Your task to perform on an android device: turn off airplane mode Image 0: 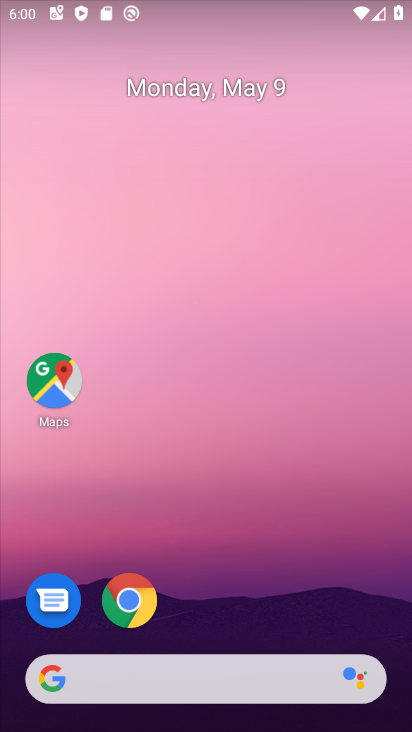
Step 0: drag from (223, 646) to (232, 239)
Your task to perform on an android device: turn off airplane mode Image 1: 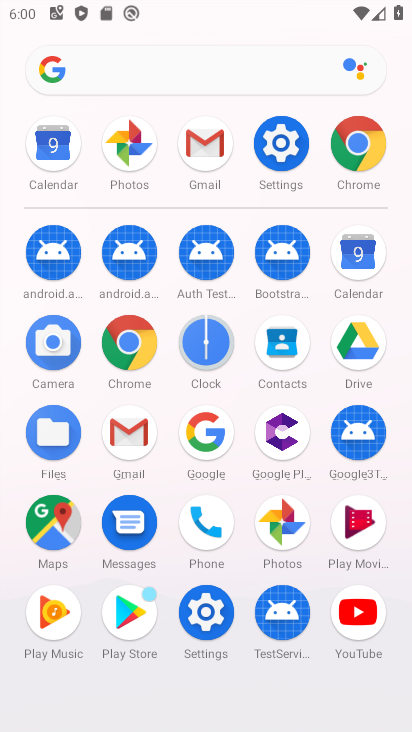
Step 1: click (276, 148)
Your task to perform on an android device: turn off airplane mode Image 2: 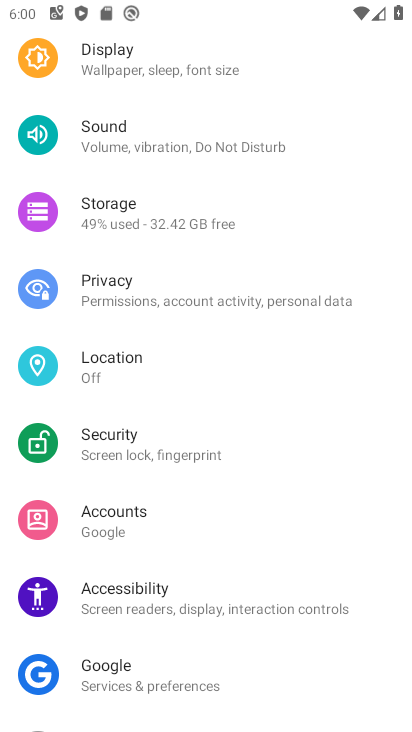
Step 2: drag from (163, 155) to (200, 596)
Your task to perform on an android device: turn off airplane mode Image 3: 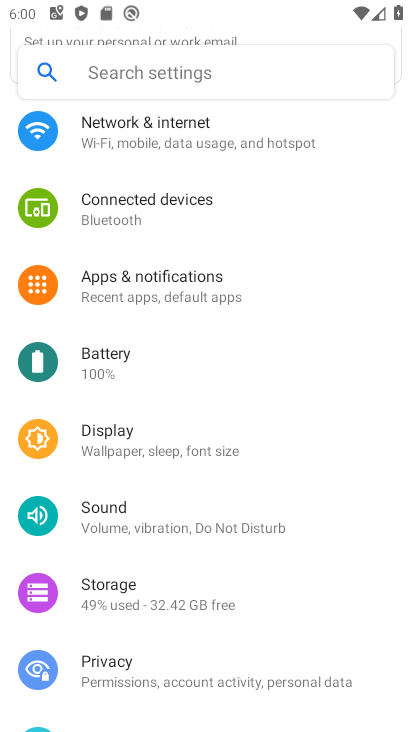
Step 3: drag from (200, 192) to (193, 479)
Your task to perform on an android device: turn off airplane mode Image 4: 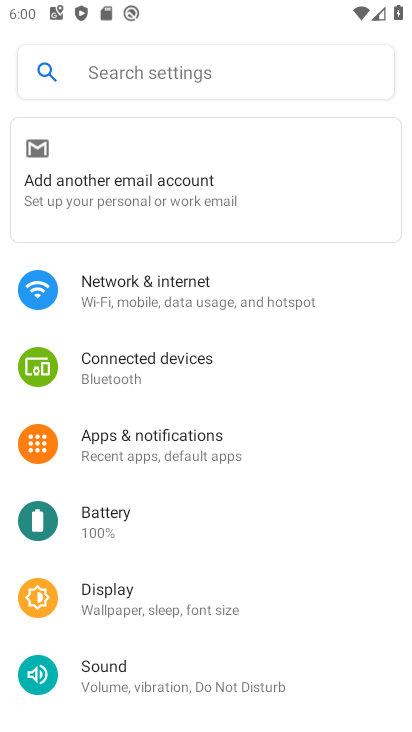
Step 4: click (165, 302)
Your task to perform on an android device: turn off airplane mode Image 5: 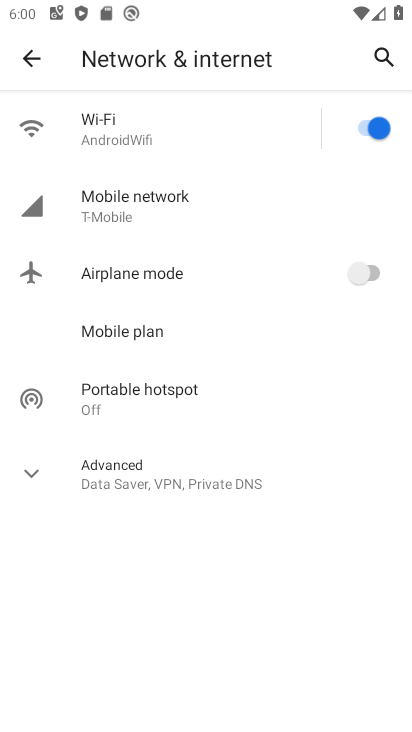
Step 5: task complete